Your task to perform on an android device: Check the settings for the Pandora app Image 0: 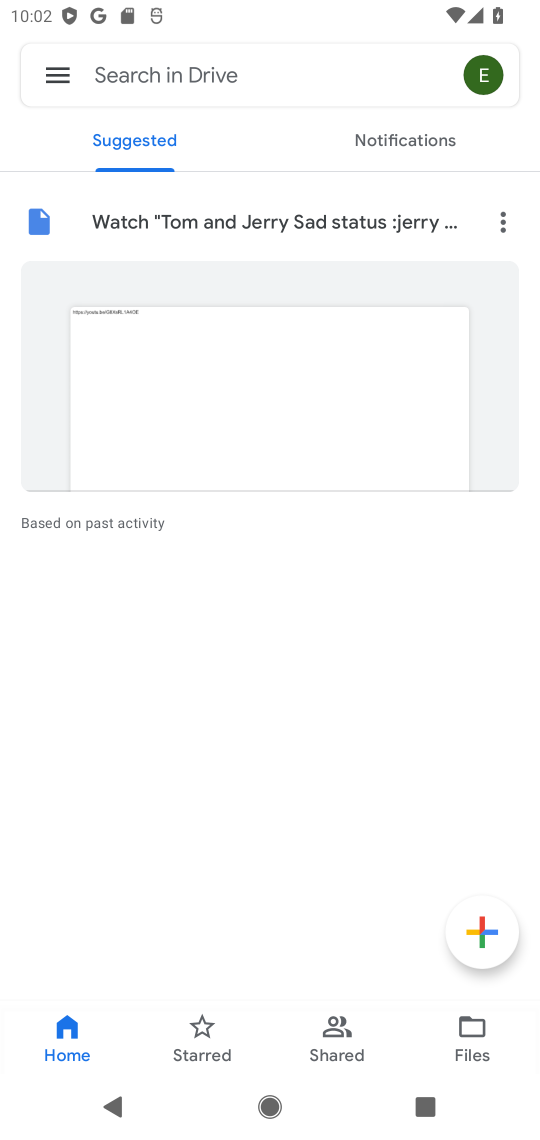
Step 0: press home button
Your task to perform on an android device: Check the settings for the Pandora app Image 1: 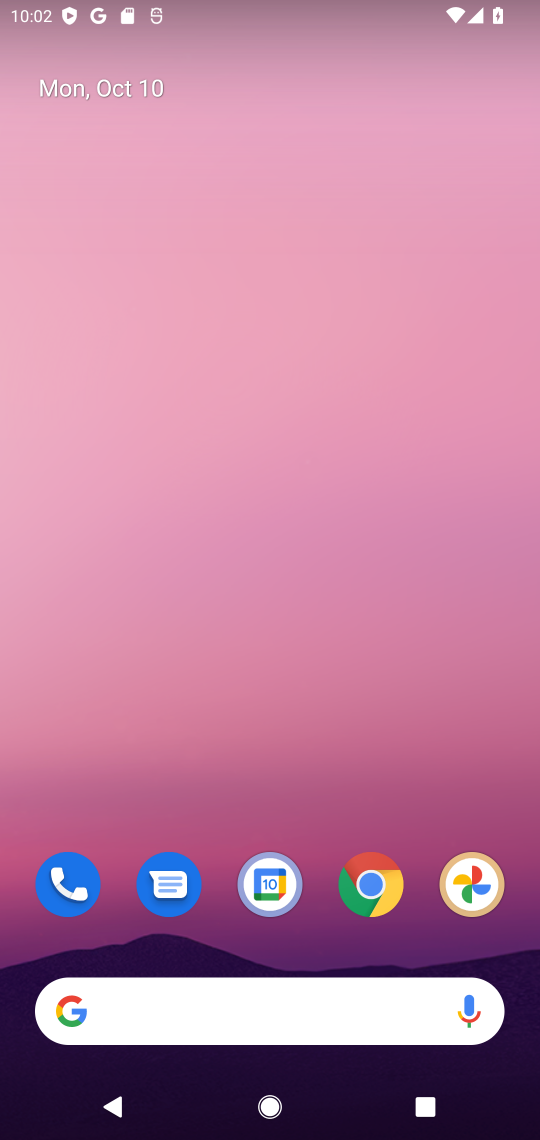
Step 1: task complete